Your task to perform on an android device: stop showing notifications on the lock screen Image 0: 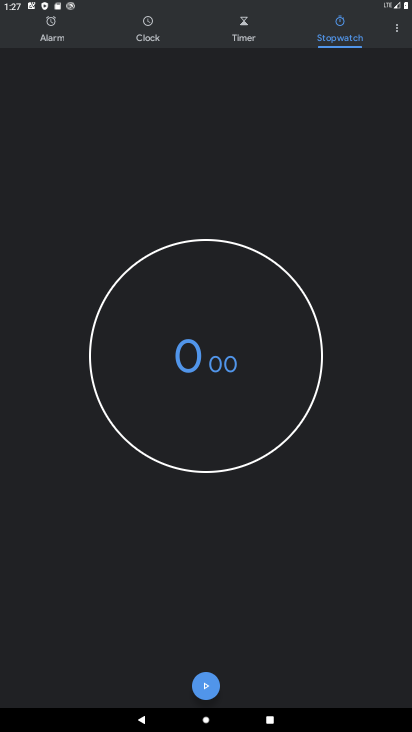
Step 0: press home button
Your task to perform on an android device: stop showing notifications on the lock screen Image 1: 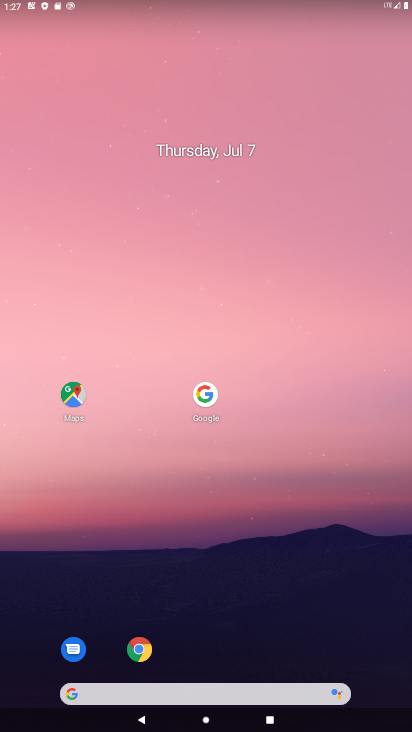
Step 1: drag from (312, 543) to (335, 7)
Your task to perform on an android device: stop showing notifications on the lock screen Image 2: 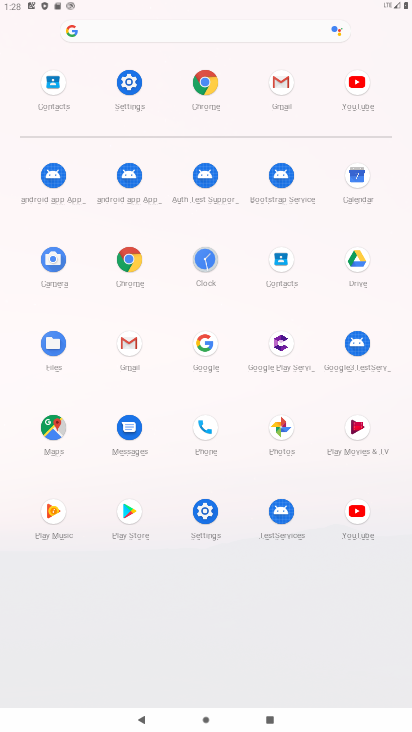
Step 2: click (123, 81)
Your task to perform on an android device: stop showing notifications on the lock screen Image 3: 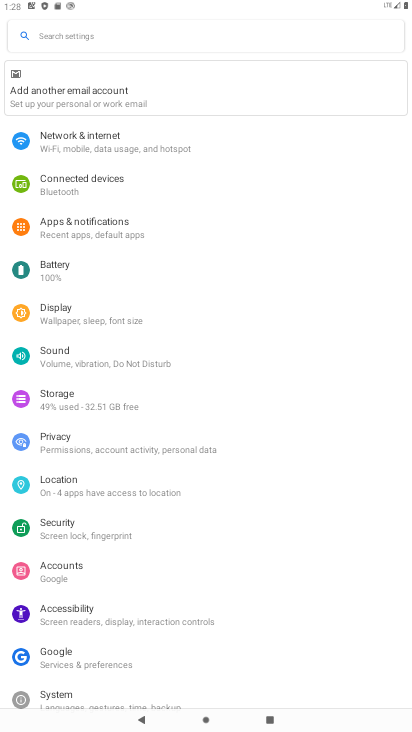
Step 3: click (100, 226)
Your task to perform on an android device: stop showing notifications on the lock screen Image 4: 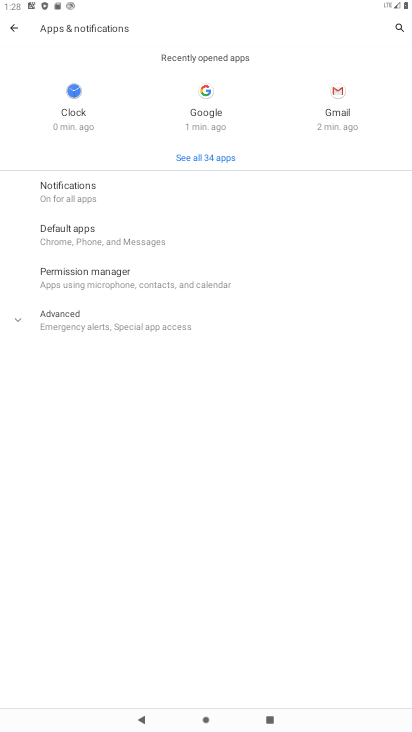
Step 4: click (74, 197)
Your task to perform on an android device: stop showing notifications on the lock screen Image 5: 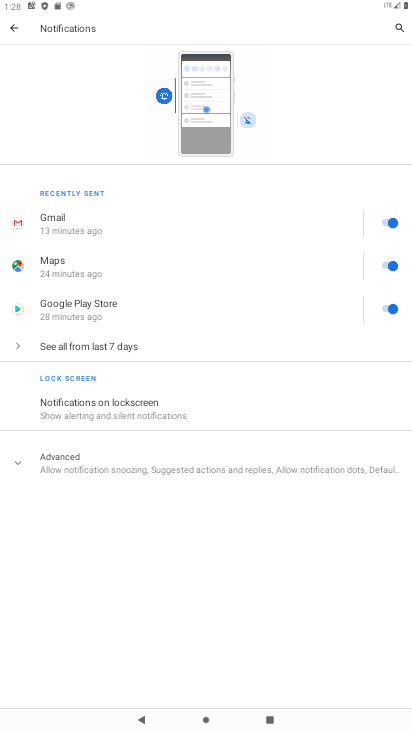
Step 5: click (87, 410)
Your task to perform on an android device: stop showing notifications on the lock screen Image 6: 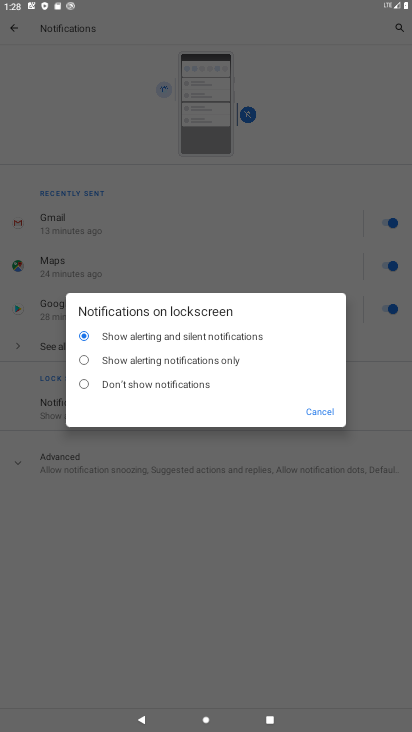
Step 6: click (86, 382)
Your task to perform on an android device: stop showing notifications on the lock screen Image 7: 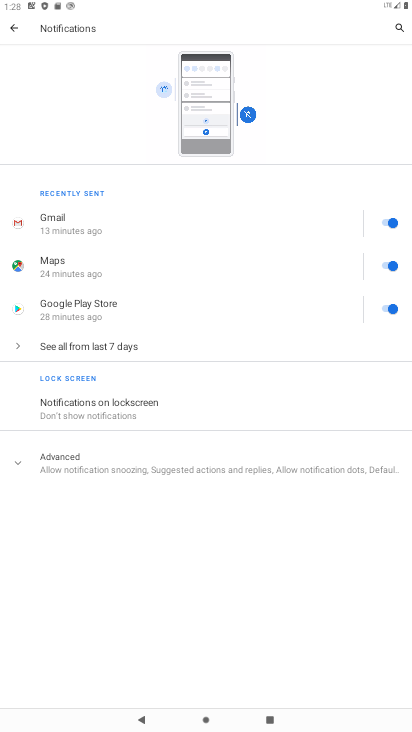
Step 7: task complete